Your task to perform on an android device: turn off priority inbox in the gmail app Image 0: 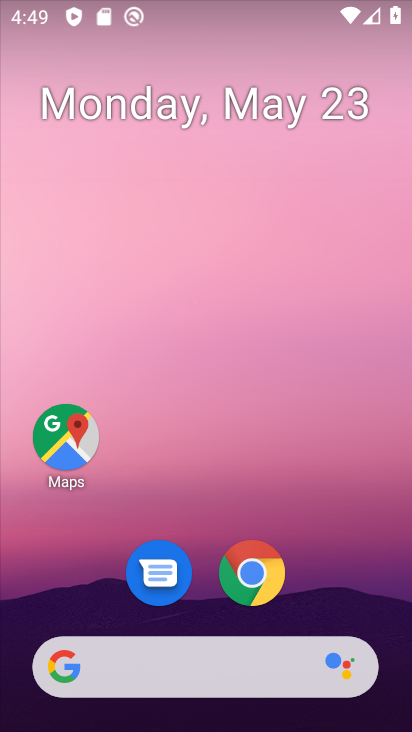
Step 0: drag from (326, 565) to (322, 154)
Your task to perform on an android device: turn off priority inbox in the gmail app Image 1: 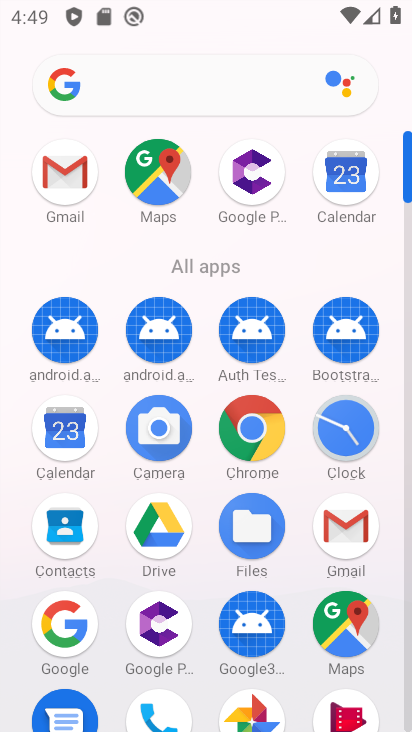
Step 1: click (65, 172)
Your task to perform on an android device: turn off priority inbox in the gmail app Image 2: 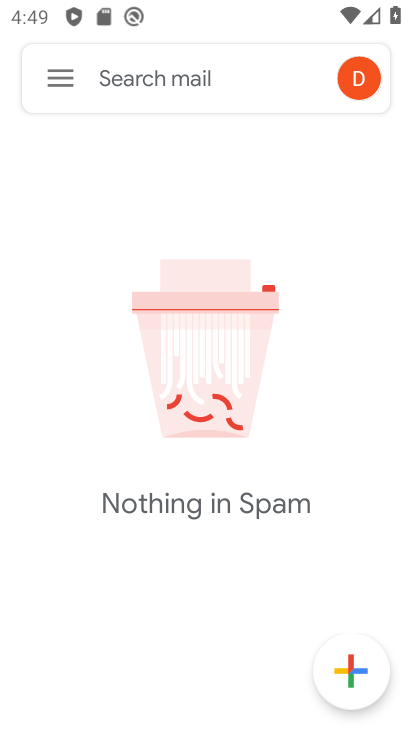
Step 2: click (61, 76)
Your task to perform on an android device: turn off priority inbox in the gmail app Image 3: 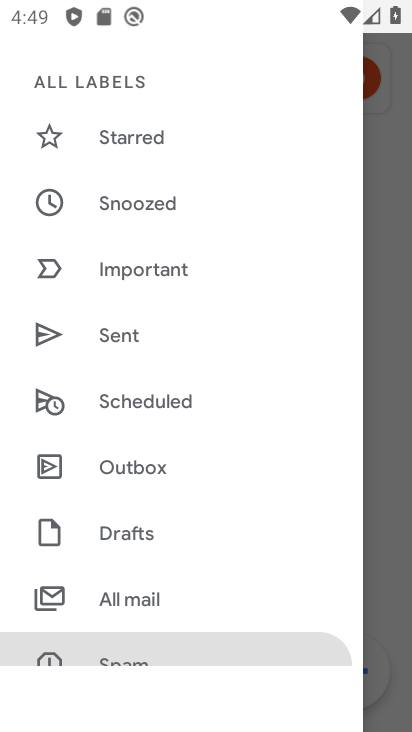
Step 3: drag from (194, 501) to (229, 440)
Your task to perform on an android device: turn off priority inbox in the gmail app Image 4: 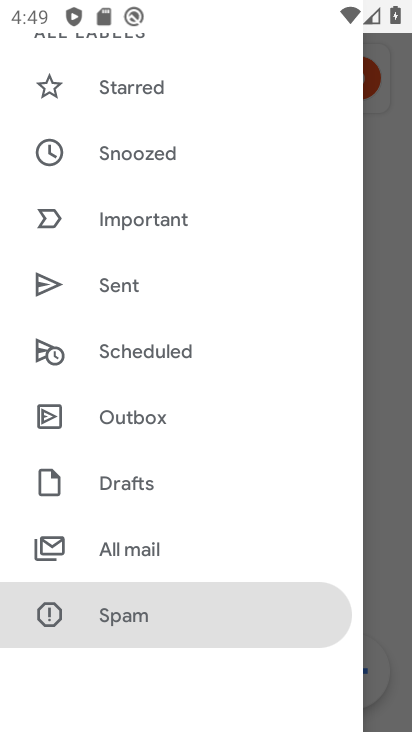
Step 4: drag from (162, 562) to (219, 467)
Your task to perform on an android device: turn off priority inbox in the gmail app Image 5: 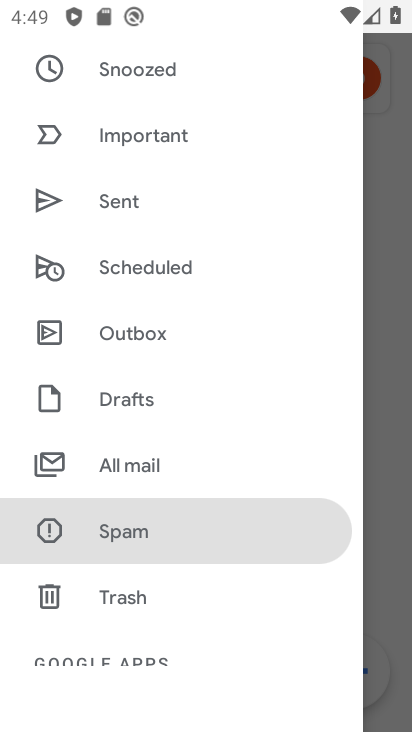
Step 5: drag from (140, 624) to (207, 502)
Your task to perform on an android device: turn off priority inbox in the gmail app Image 6: 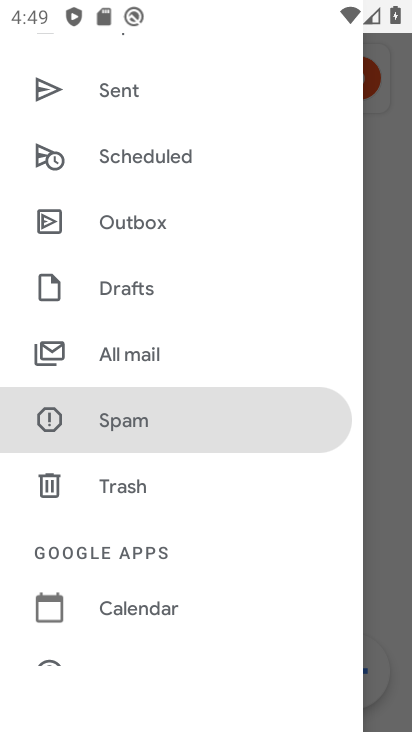
Step 6: drag from (130, 582) to (207, 488)
Your task to perform on an android device: turn off priority inbox in the gmail app Image 7: 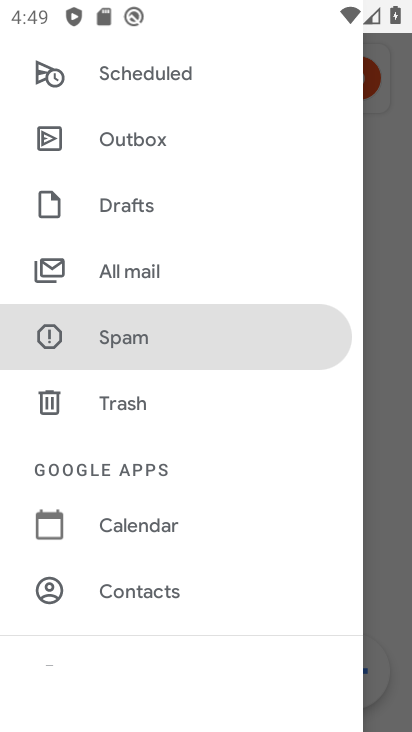
Step 7: drag from (144, 653) to (229, 522)
Your task to perform on an android device: turn off priority inbox in the gmail app Image 8: 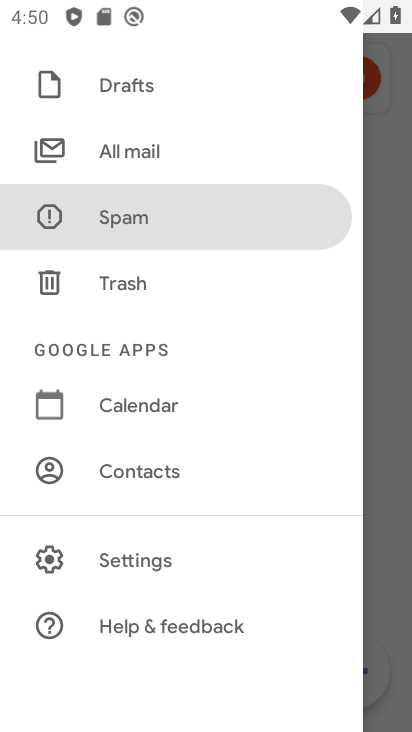
Step 8: click (163, 561)
Your task to perform on an android device: turn off priority inbox in the gmail app Image 9: 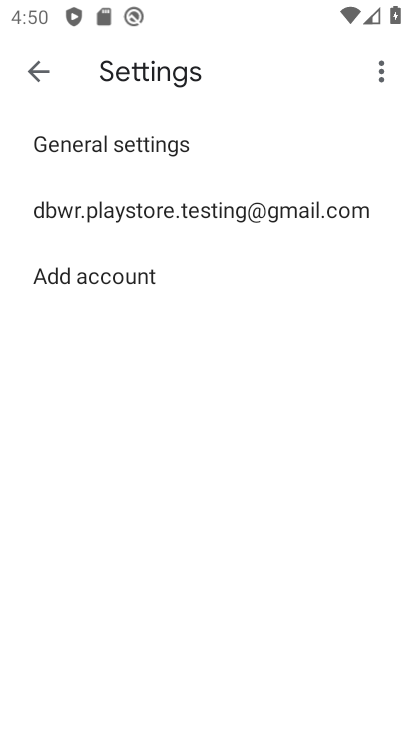
Step 9: click (218, 220)
Your task to perform on an android device: turn off priority inbox in the gmail app Image 10: 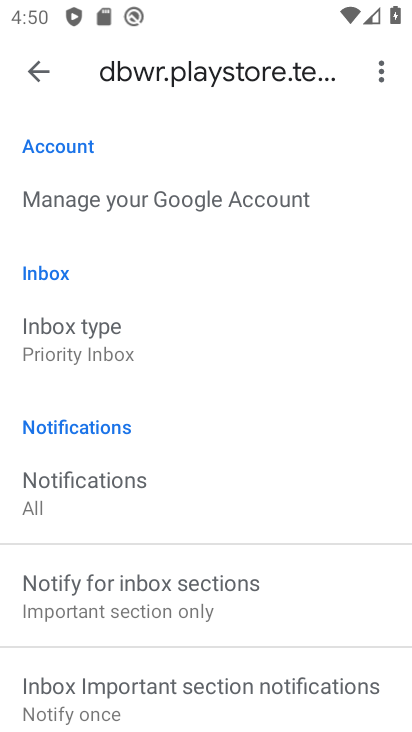
Step 10: click (108, 351)
Your task to perform on an android device: turn off priority inbox in the gmail app Image 11: 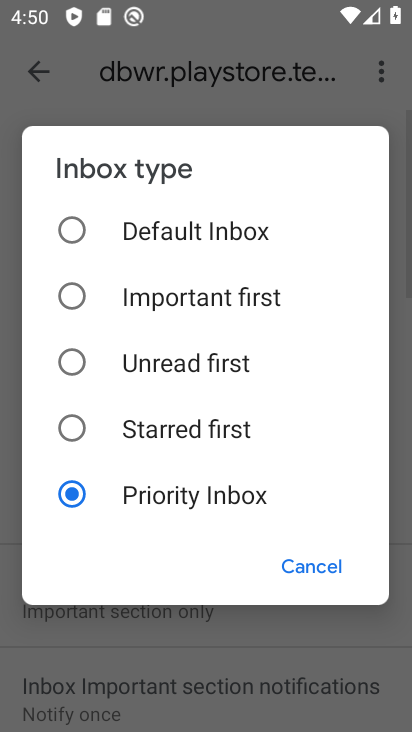
Step 11: click (63, 236)
Your task to perform on an android device: turn off priority inbox in the gmail app Image 12: 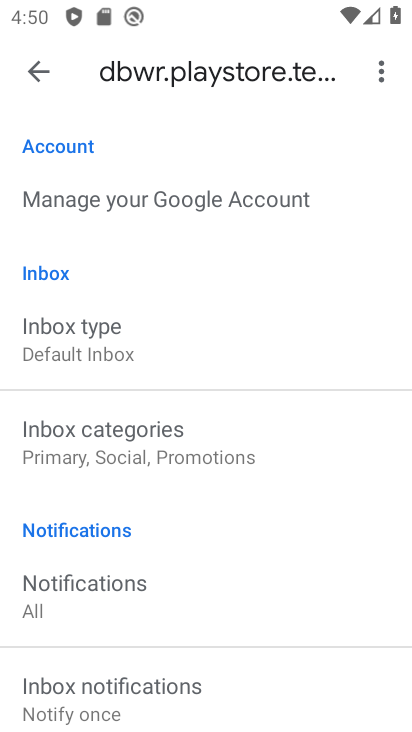
Step 12: task complete